Your task to perform on an android device: turn on airplane mode Image 0: 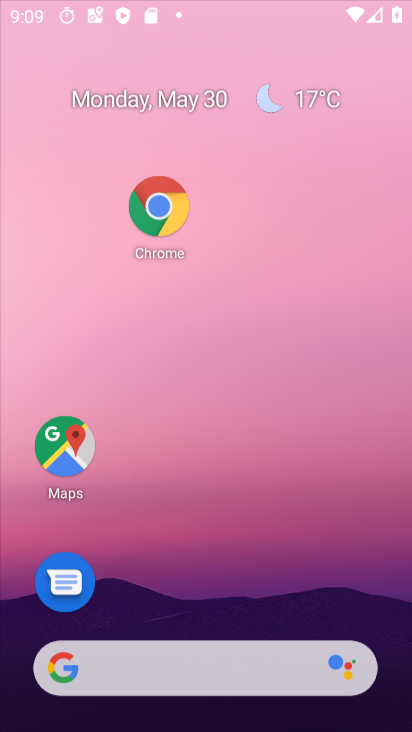
Step 0: drag from (351, 1) to (216, 23)
Your task to perform on an android device: turn on airplane mode Image 1: 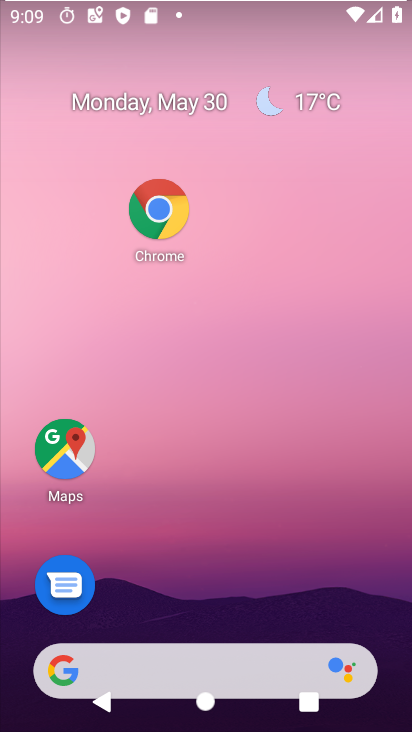
Step 1: drag from (220, 568) to (10, 16)
Your task to perform on an android device: turn on airplane mode Image 2: 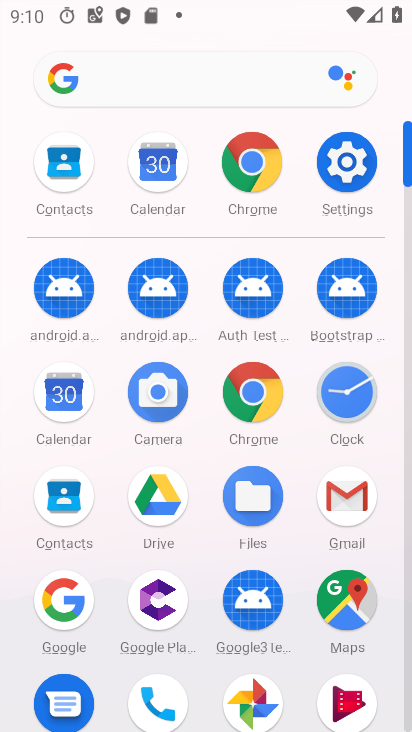
Step 2: click (343, 152)
Your task to perform on an android device: turn on airplane mode Image 3: 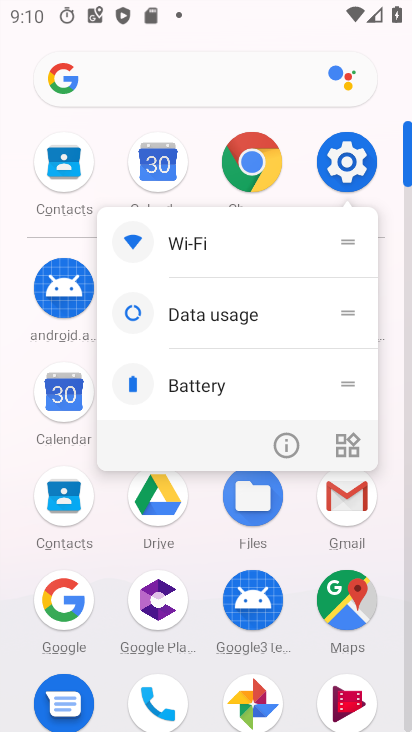
Step 3: click (284, 443)
Your task to perform on an android device: turn on airplane mode Image 4: 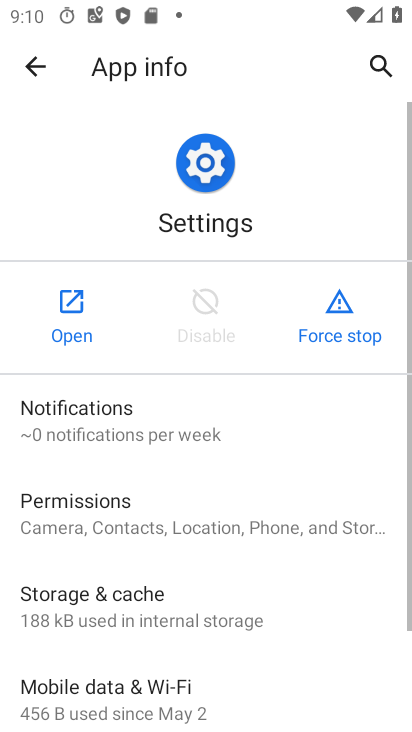
Step 4: click (64, 331)
Your task to perform on an android device: turn on airplane mode Image 5: 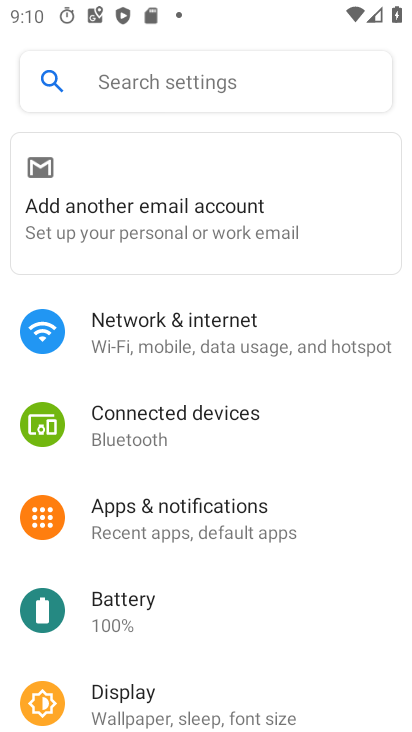
Step 5: click (215, 368)
Your task to perform on an android device: turn on airplane mode Image 6: 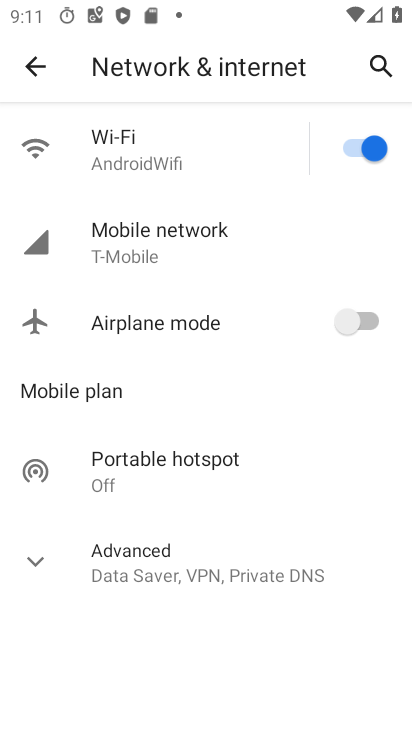
Step 6: click (303, 330)
Your task to perform on an android device: turn on airplane mode Image 7: 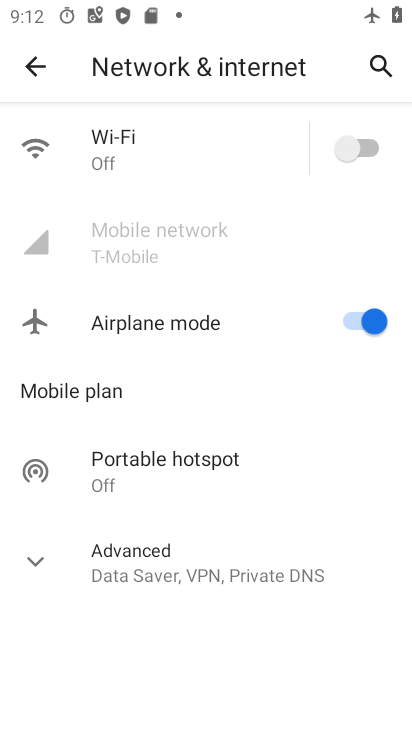
Step 7: task complete